Your task to perform on an android device: choose inbox layout in the gmail app Image 0: 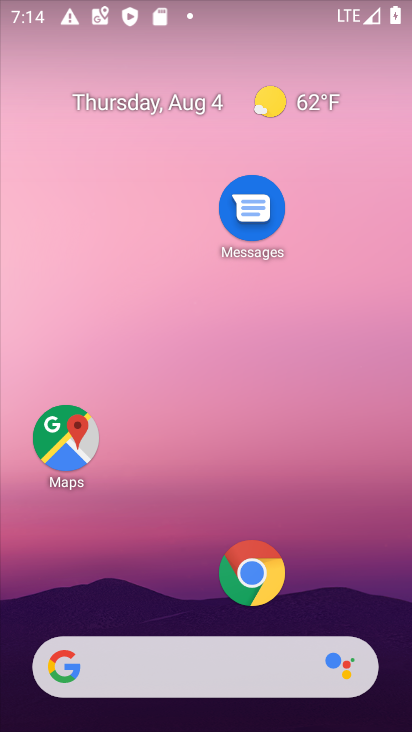
Step 0: press home button
Your task to perform on an android device: choose inbox layout in the gmail app Image 1: 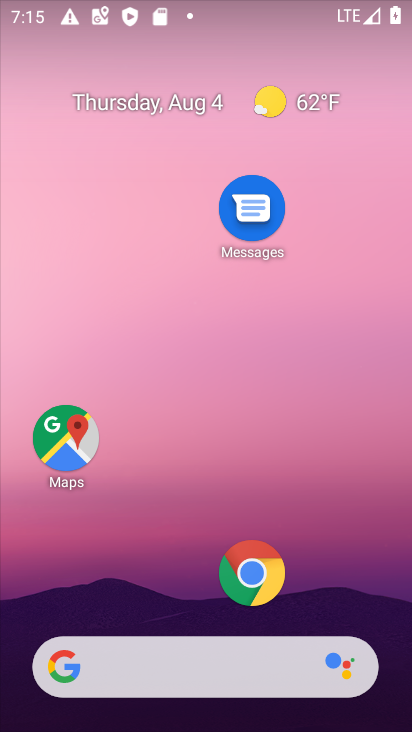
Step 1: drag from (172, 616) to (186, 127)
Your task to perform on an android device: choose inbox layout in the gmail app Image 2: 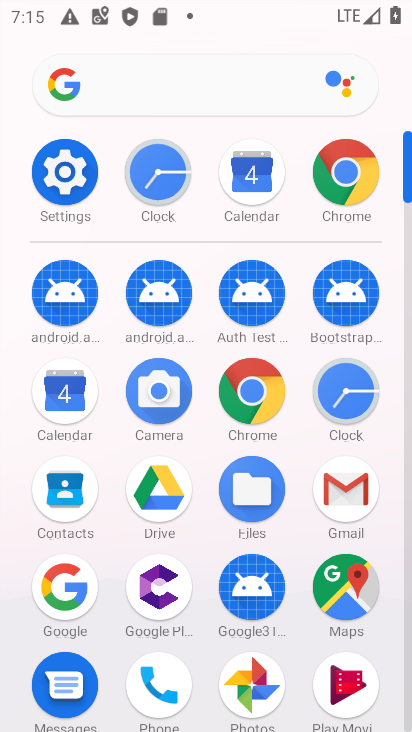
Step 2: click (366, 468)
Your task to perform on an android device: choose inbox layout in the gmail app Image 3: 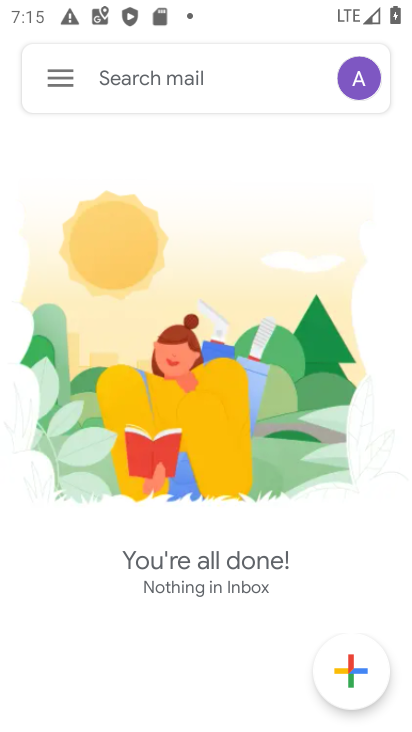
Step 3: click (54, 94)
Your task to perform on an android device: choose inbox layout in the gmail app Image 4: 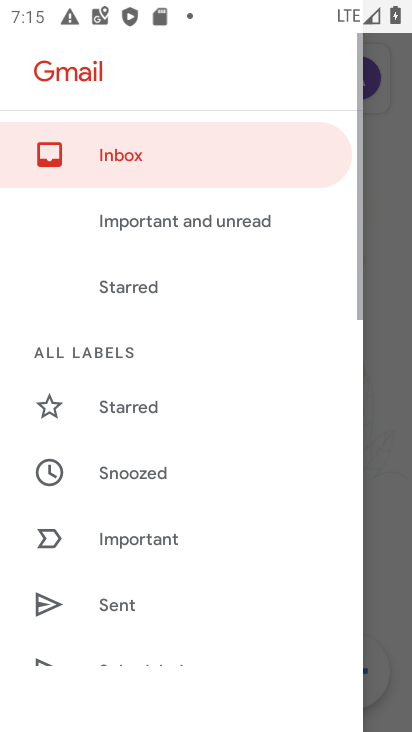
Step 4: drag from (240, 622) to (272, 117)
Your task to perform on an android device: choose inbox layout in the gmail app Image 5: 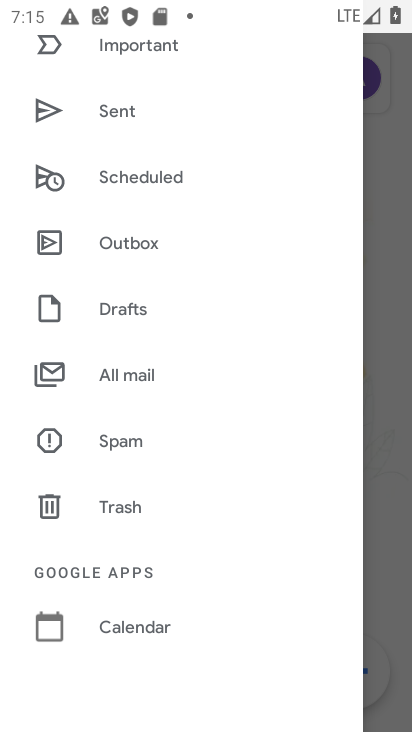
Step 5: drag from (229, 523) to (226, 206)
Your task to perform on an android device: choose inbox layout in the gmail app Image 6: 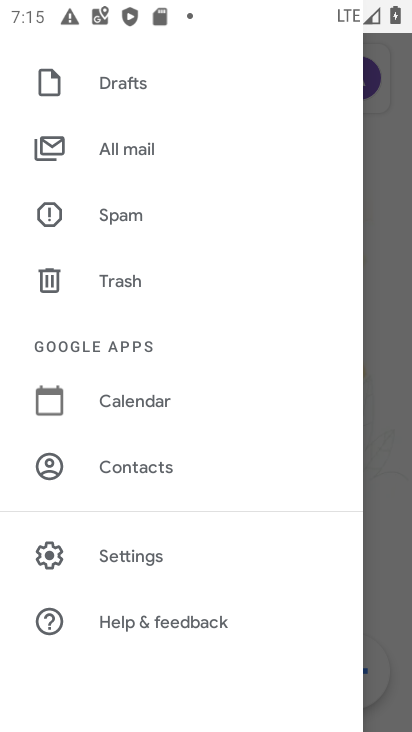
Step 6: click (139, 559)
Your task to perform on an android device: choose inbox layout in the gmail app Image 7: 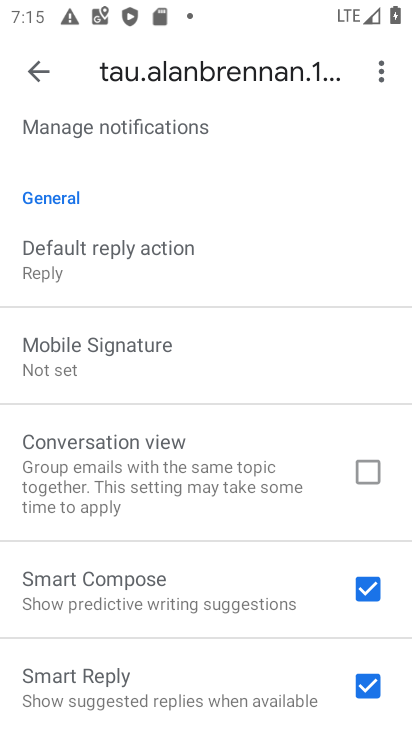
Step 7: drag from (266, 200) to (314, 624)
Your task to perform on an android device: choose inbox layout in the gmail app Image 8: 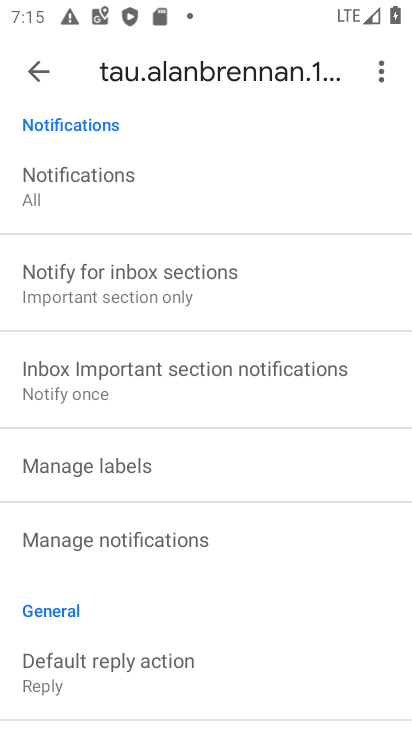
Step 8: drag from (252, 232) to (286, 701)
Your task to perform on an android device: choose inbox layout in the gmail app Image 9: 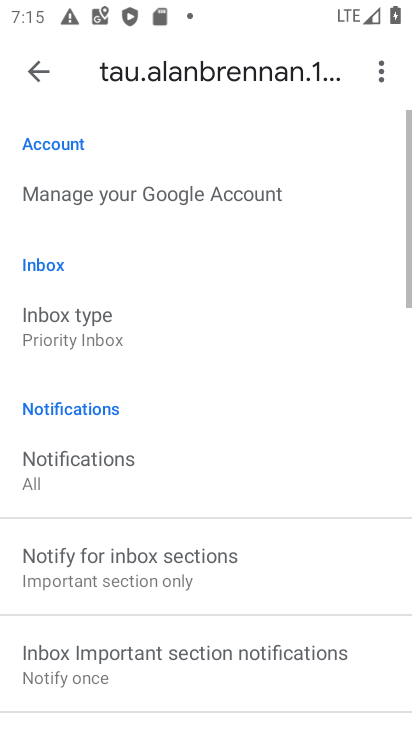
Step 9: click (88, 339)
Your task to perform on an android device: choose inbox layout in the gmail app Image 10: 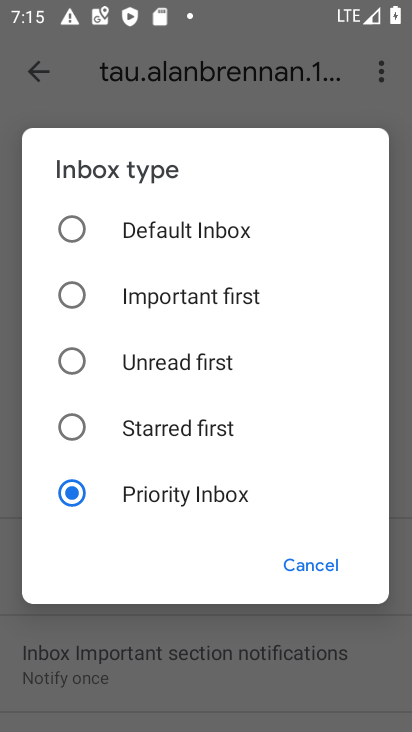
Step 10: click (69, 295)
Your task to perform on an android device: choose inbox layout in the gmail app Image 11: 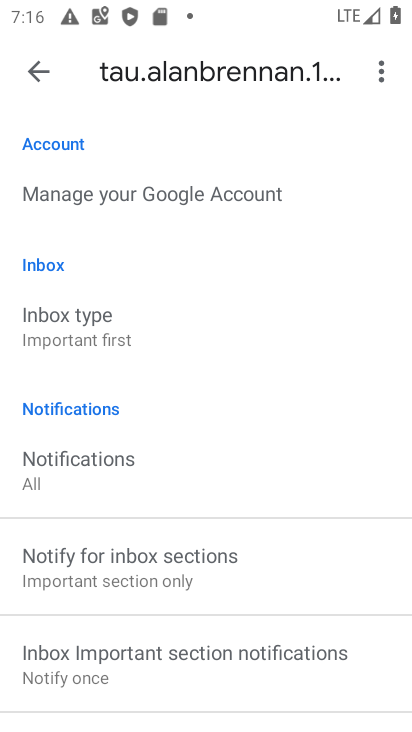
Step 11: task complete